Your task to perform on an android device: Set the phone to "Do not disturb". Image 0: 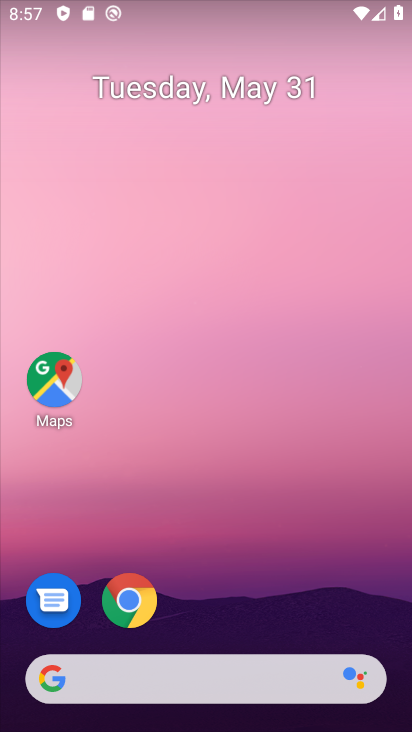
Step 0: drag from (247, 714) to (208, 269)
Your task to perform on an android device: Set the phone to "Do not disturb". Image 1: 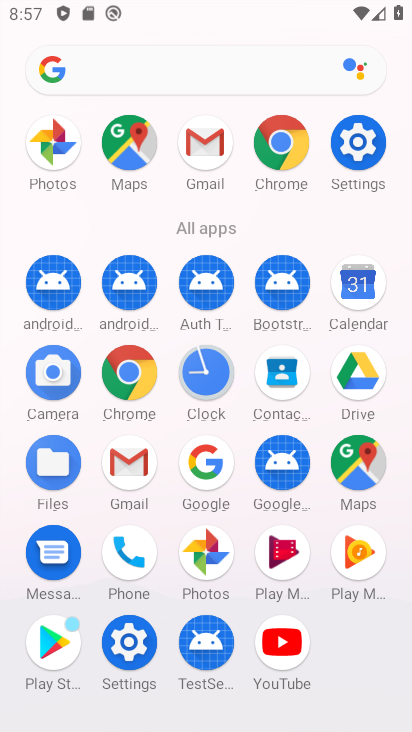
Step 1: click (366, 116)
Your task to perform on an android device: Set the phone to "Do not disturb". Image 2: 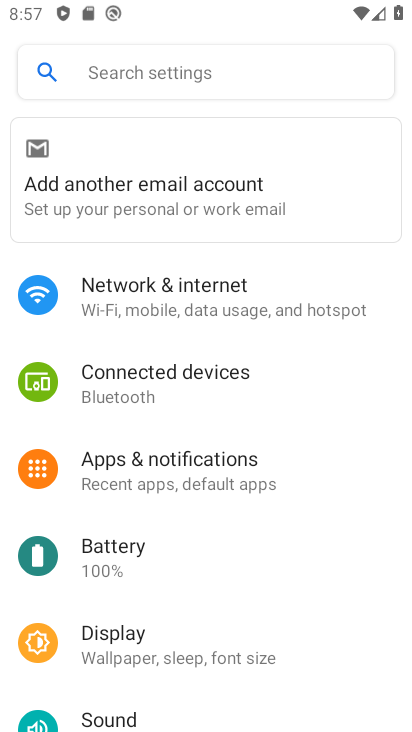
Step 2: click (193, 64)
Your task to perform on an android device: Set the phone to "Do not disturb". Image 3: 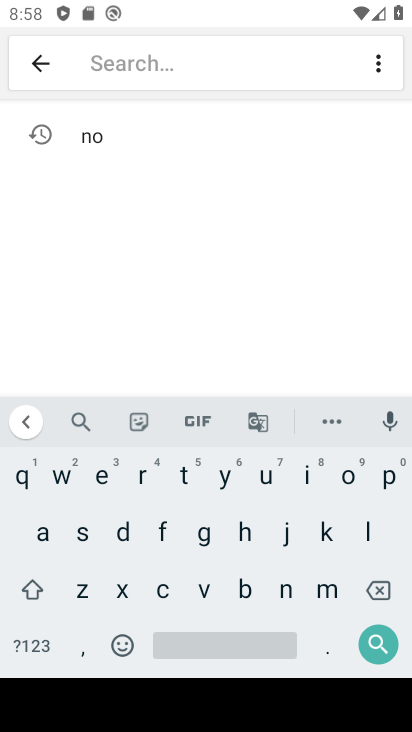
Step 3: click (119, 552)
Your task to perform on an android device: Set the phone to "Do not disturb". Image 4: 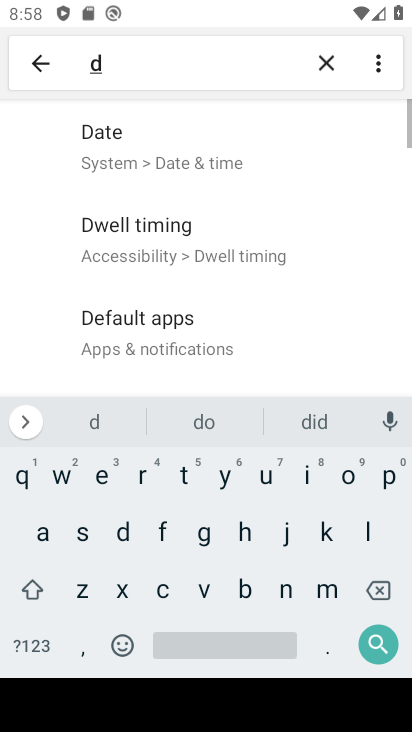
Step 4: click (287, 592)
Your task to perform on an android device: Set the phone to "Do not disturb". Image 5: 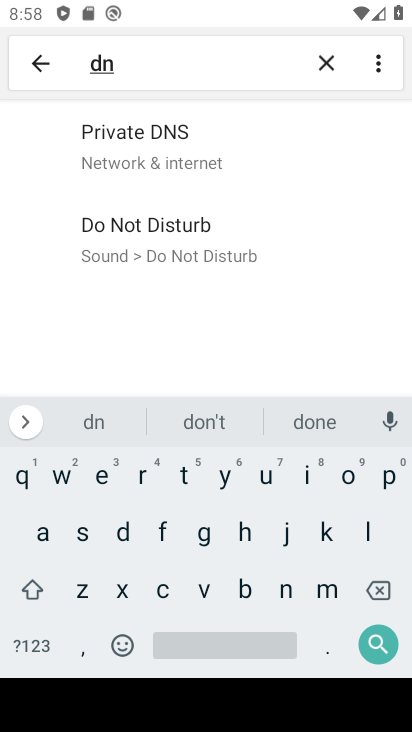
Step 5: click (161, 222)
Your task to perform on an android device: Set the phone to "Do not disturb". Image 6: 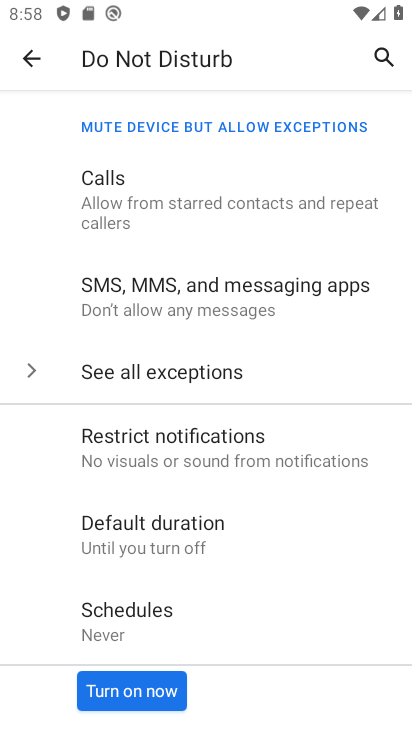
Step 6: task complete